Your task to perform on an android device: Go to Reddit.com Image 0: 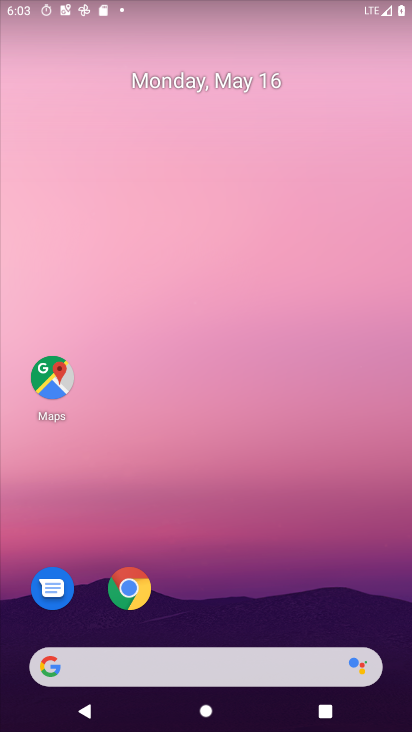
Step 0: drag from (273, 570) to (226, 100)
Your task to perform on an android device: Go to Reddit.com Image 1: 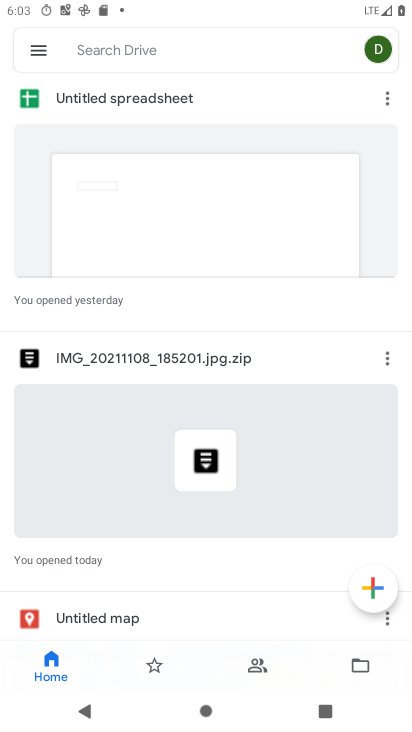
Step 1: press home button
Your task to perform on an android device: Go to Reddit.com Image 2: 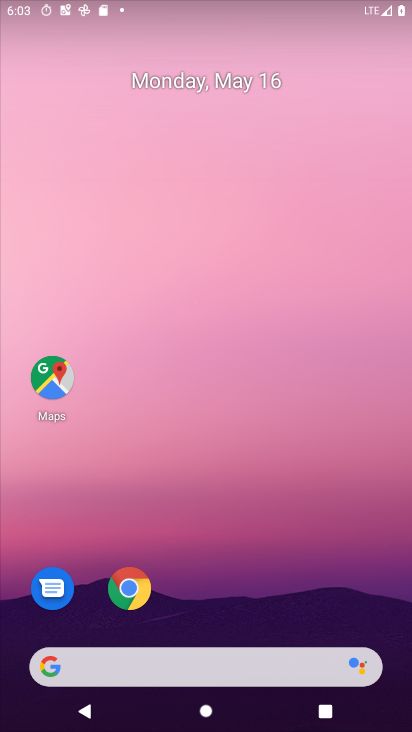
Step 2: drag from (219, 384) to (161, 42)
Your task to perform on an android device: Go to Reddit.com Image 3: 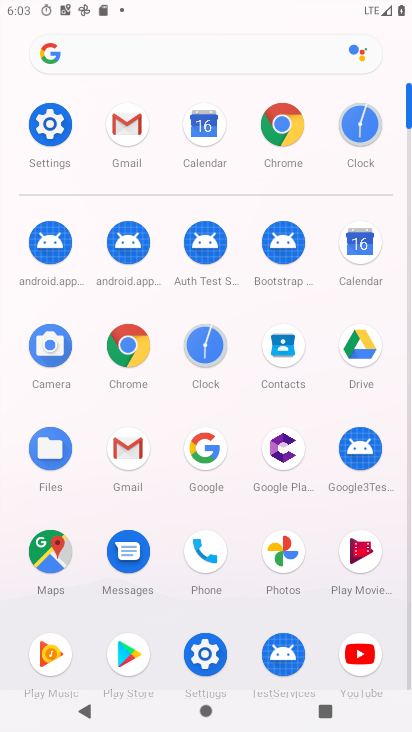
Step 3: click (290, 114)
Your task to perform on an android device: Go to Reddit.com Image 4: 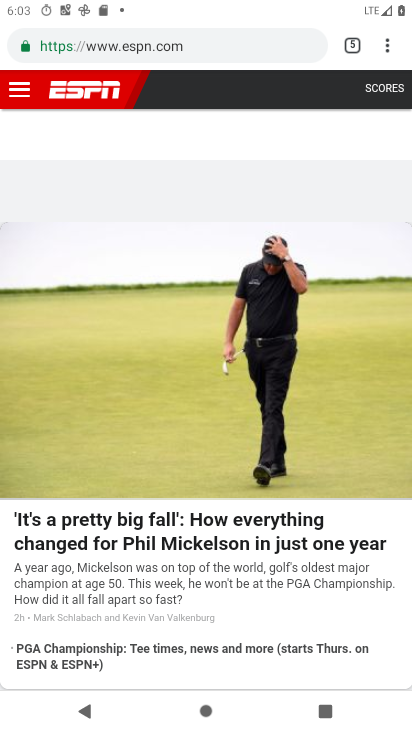
Step 4: click (163, 40)
Your task to perform on an android device: Go to Reddit.com Image 5: 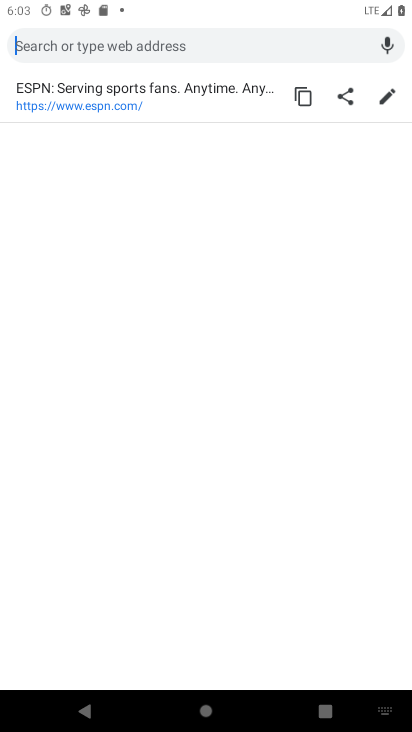
Step 5: type "Reddit.com"
Your task to perform on an android device: Go to Reddit.com Image 6: 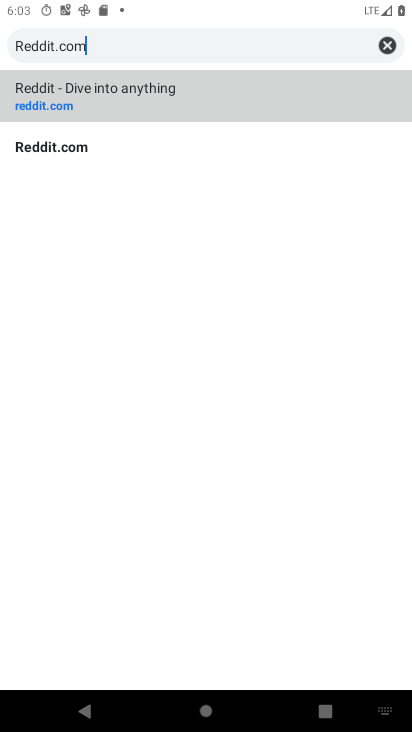
Step 6: click (92, 92)
Your task to perform on an android device: Go to Reddit.com Image 7: 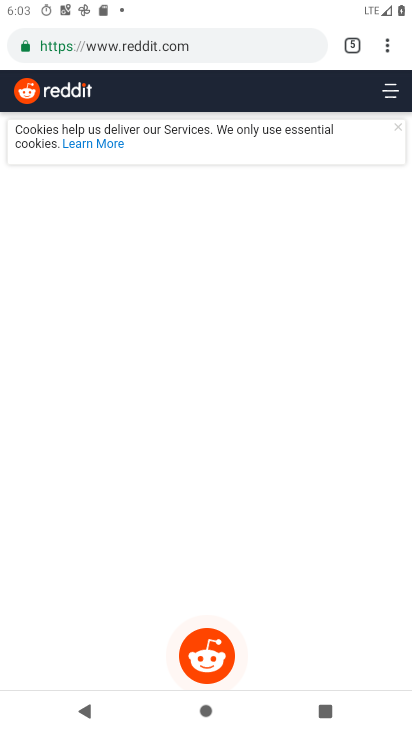
Step 7: task complete